Your task to perform on an android device: toggle wifi Image 0: 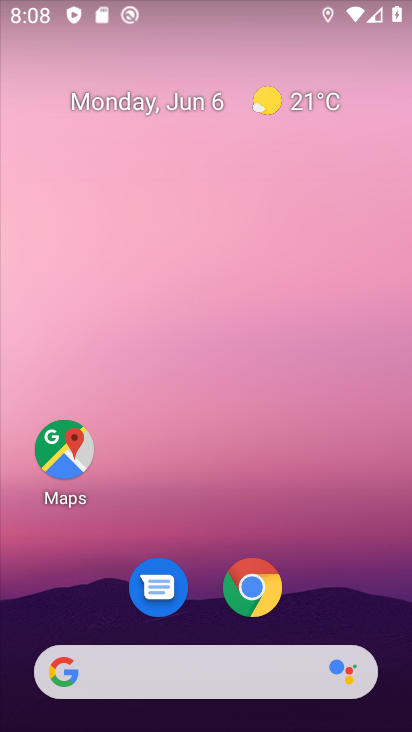
Step 0: click (321, 166)
Your task to perform on an android device: toggle wifi Image 1: 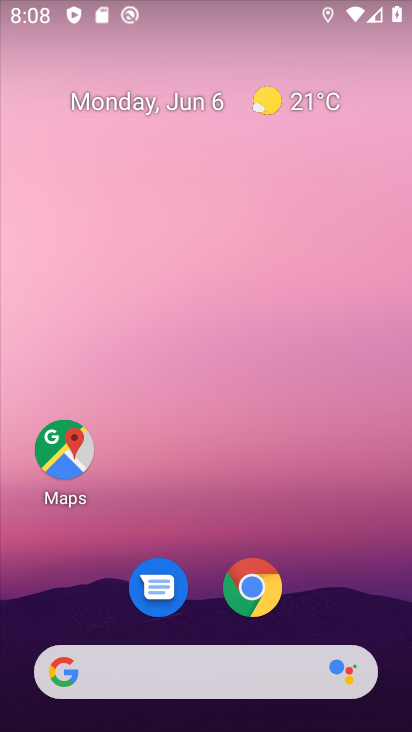
Step 1: press home button
Your task to perform on an android device: toggle wifi Image 2: 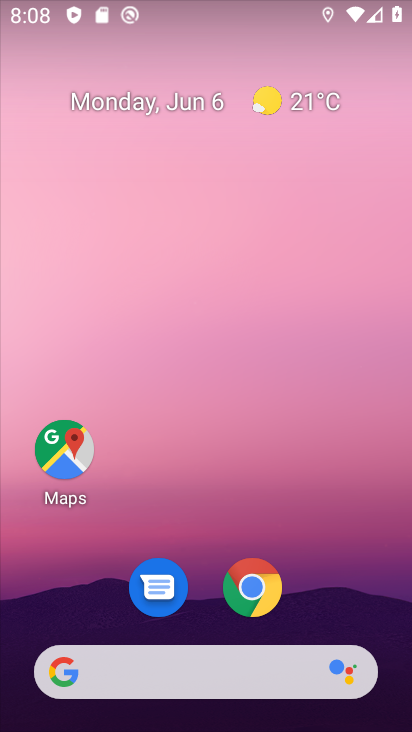
Step 2: drag from (350, 514) to (315, 82)
Your task to perform on an android device: toggle wifi Image 3: 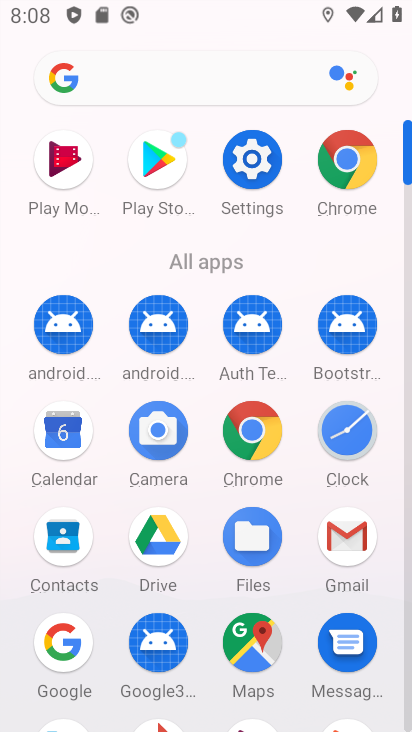
Step 3: click (257, 157)
Your task to perform on an android device: toggle wifi Image 4: 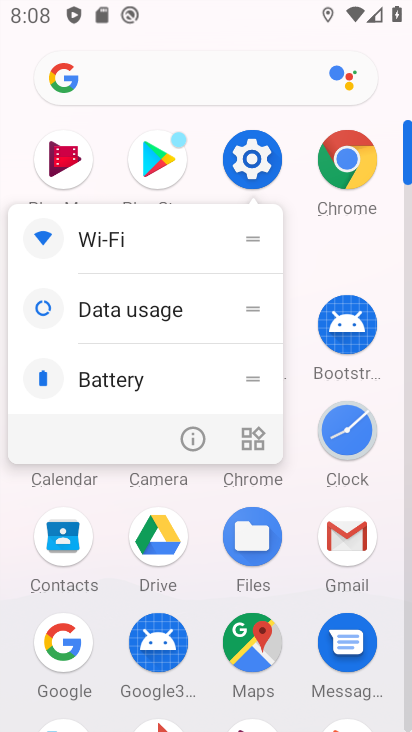
Step 4: click (257, 157)
Your task to perform on an android device: toggle wifi Image 5: 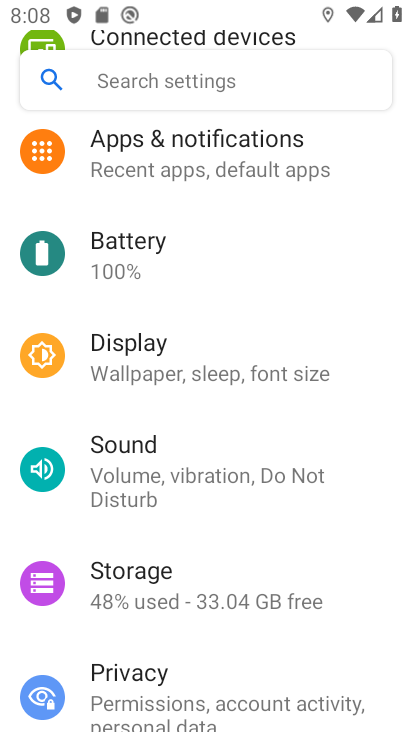
Step 5: drag from (256, 159) to (224, 493)
Your task to perform on an android device: toggle wifi Image 6: 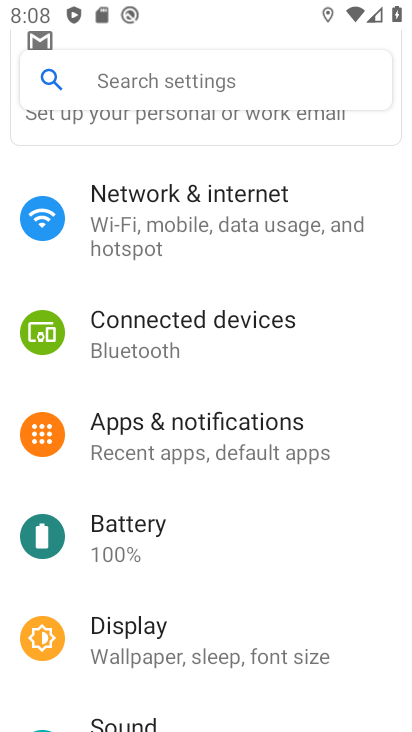
Step 6: click (219, 244)
Your task to perform on an android device: toggle wifi Image 7: 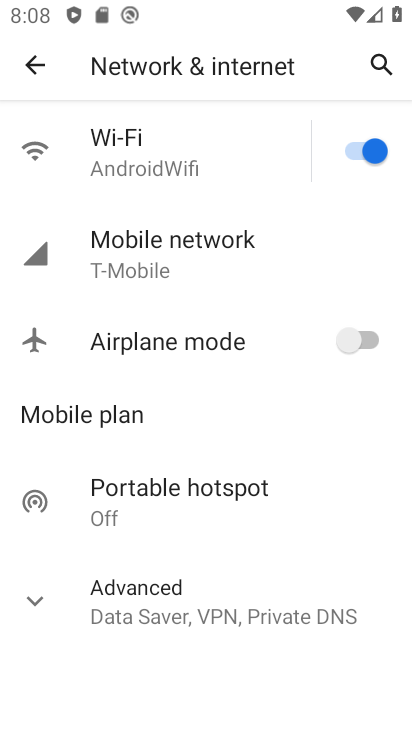
Step 7: click (360, 145)
Your task to perform on an android device: toggle wifi Image 8: 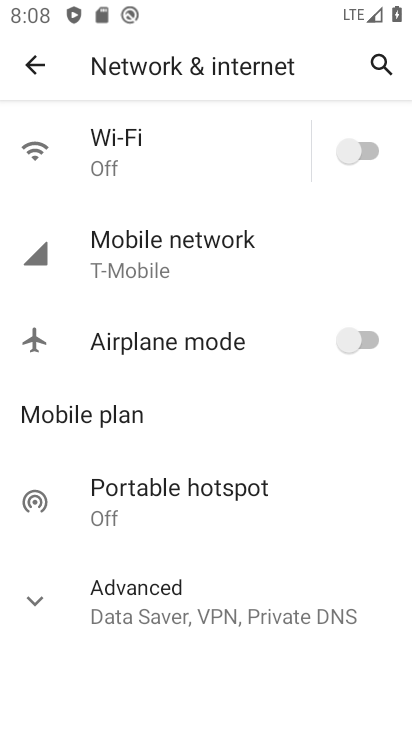
Step 8: task complete